Your task to perform on an android device: turn off translation in the chrome app Image 0: 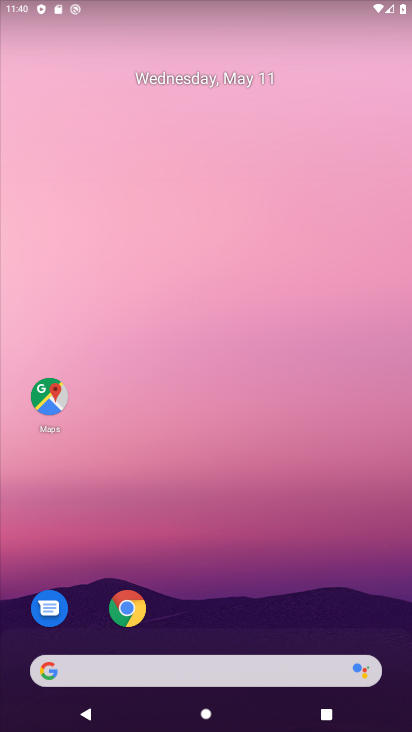
Step 0: click (130, 622)
Your task to perform on an android device: turn off translation in the chrome app Image 1: 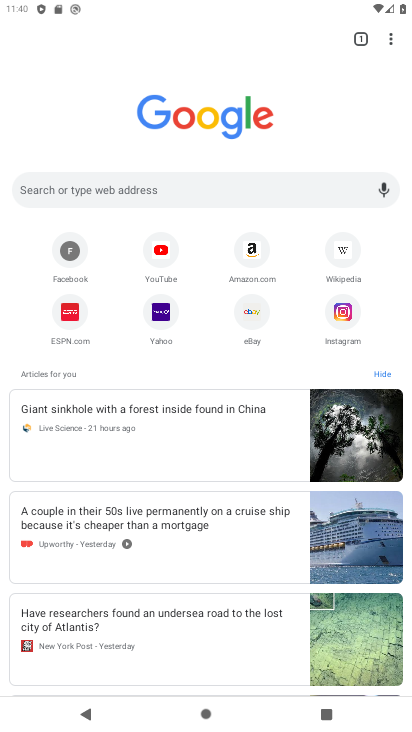
Step 1: click (388, 38)
Your task to perform on an android device: turn off translation in the chrome app Image 2: 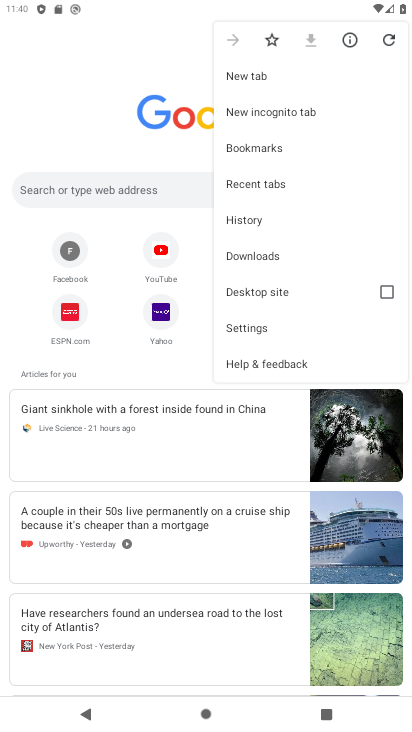
Step 2: click (257, 326)
Your task to perform on an android device: turn off translation in the chrome app Image 3: 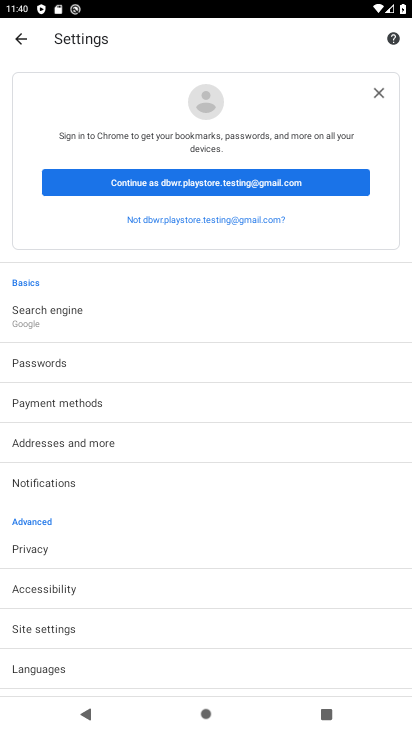
Step 3: click (67, 665)
Your task to perform on an android device: turn off translation in the chrome app Image 4: 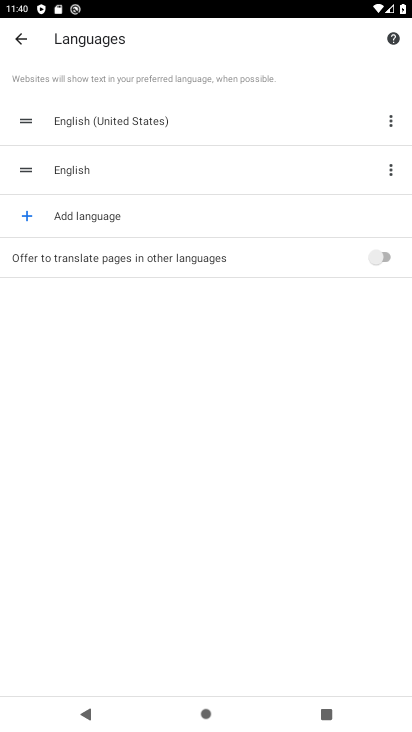
Step 4: task complete